Your task to perform on an android device: install app "Microsoft Outlook" Image 0: 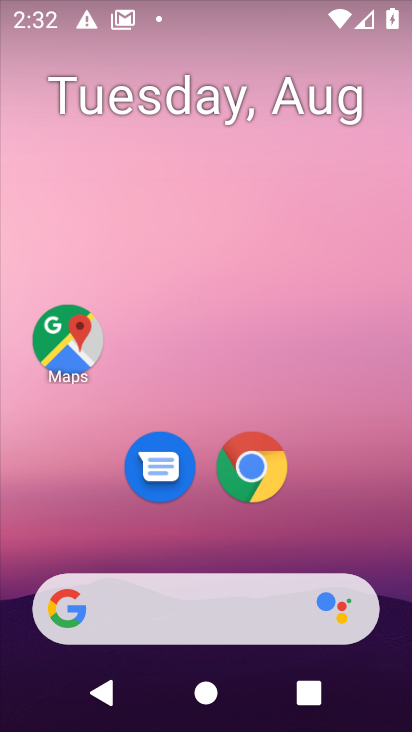
Step 0: task complete